Your task to perform on an android device: turn on improve location accuracy Image 0: 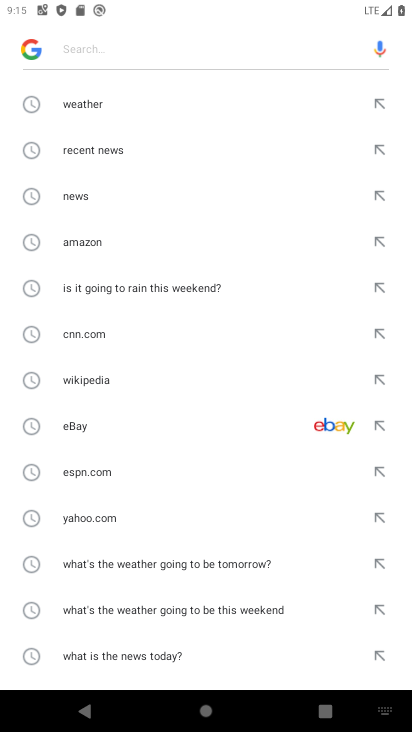
Step 0: press home button
Your task to perform on an android device: turn on improve location accuracy Image 1: 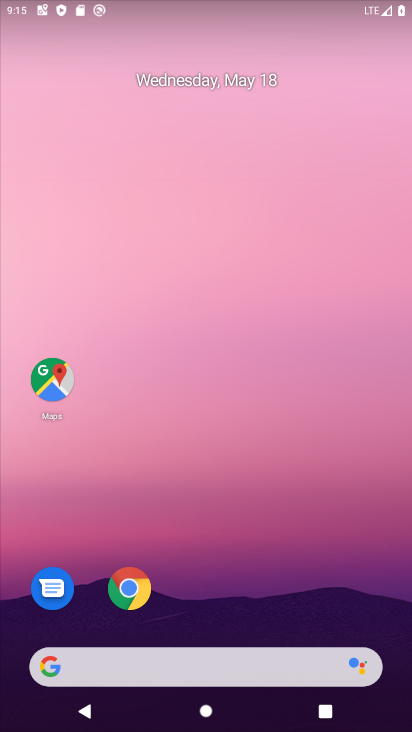
Step 1: drag from (294, 634) to (311, 5)
Your task to perform on an android device: turn on improve location accuracy Image 2: 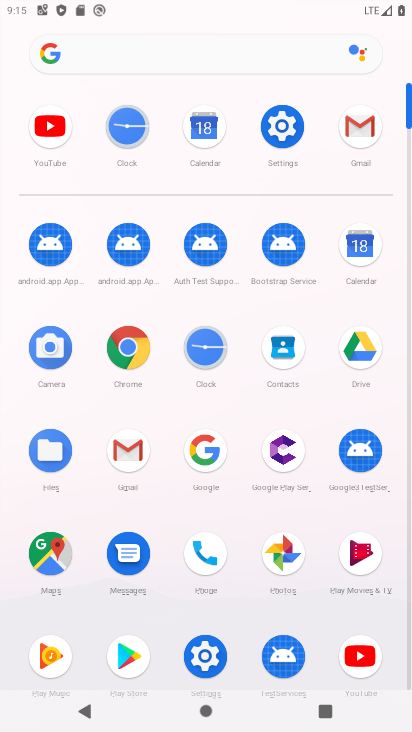
Step 2: click (278, 121)
Your task to perform on an android device: turn on improve location accuracy Image 3: 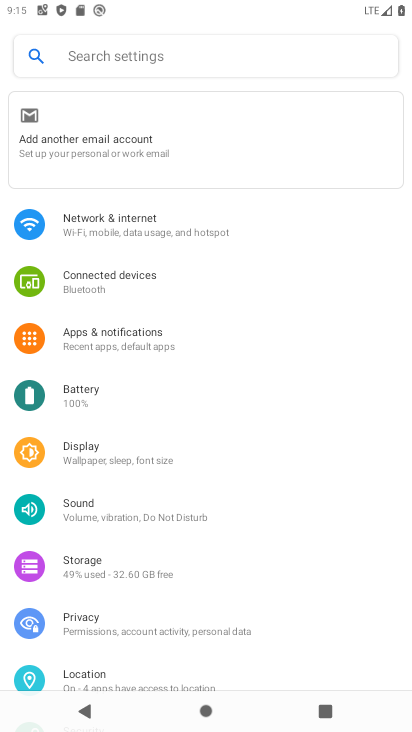
Step 3: drag from (180, 650) to (190, 467)
Your task to perform on an android device: turn on improve location accuracy Image 4: 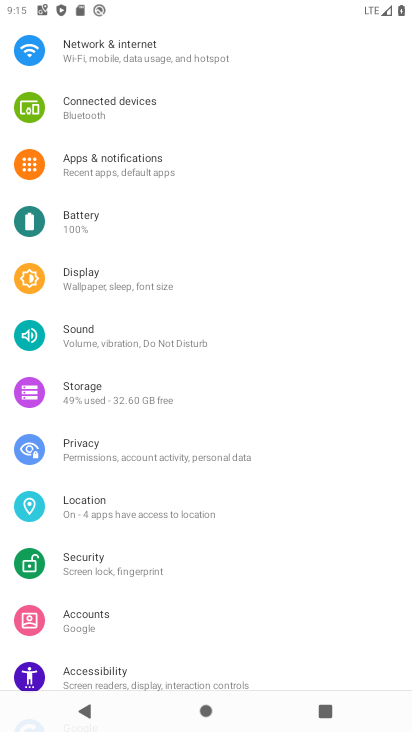
Step 4: click (101, 508)
Your task to perform on an android device: turn on improve location accuracy Image 5: 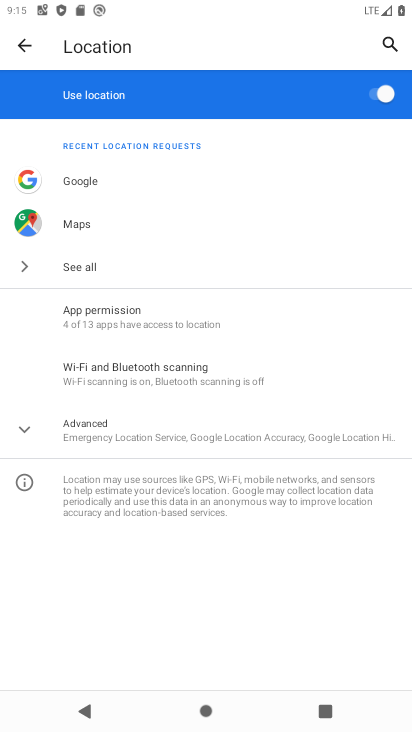
Step 5: click (21, 437)
Your task to perform on an android device: turn on improve location accuracy Image 6: 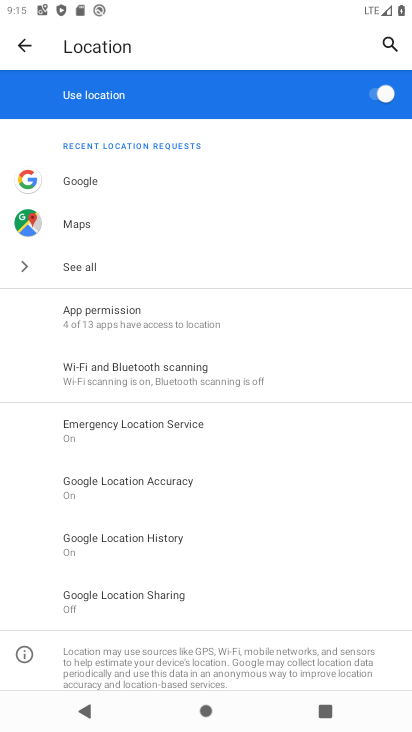
Step 6: click (86, 485)
Your task to perform on an android device: turn on improve location accuracy Image 7: 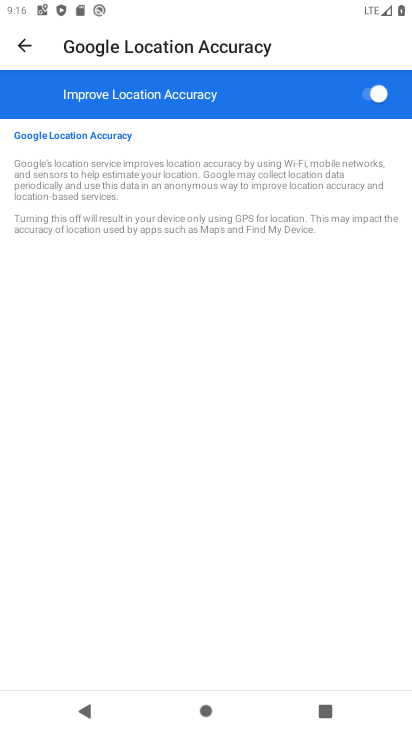
Step 7: task complete